Your task to perform on an android device: When is my next meeting? Image 0: 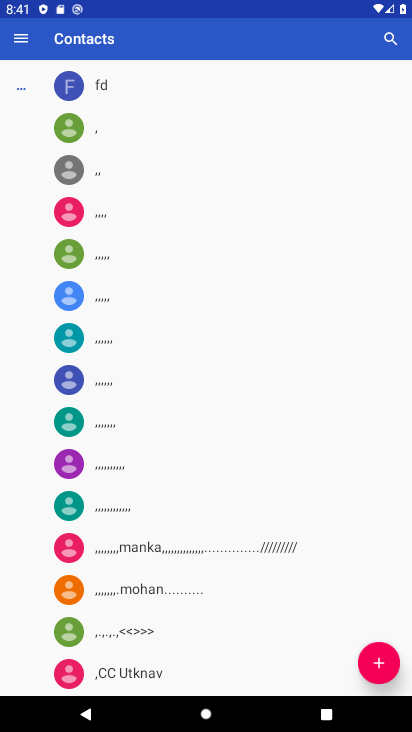
Step 0: press home button
Your task to perform on an android device: When is my next meeting? Image 1: 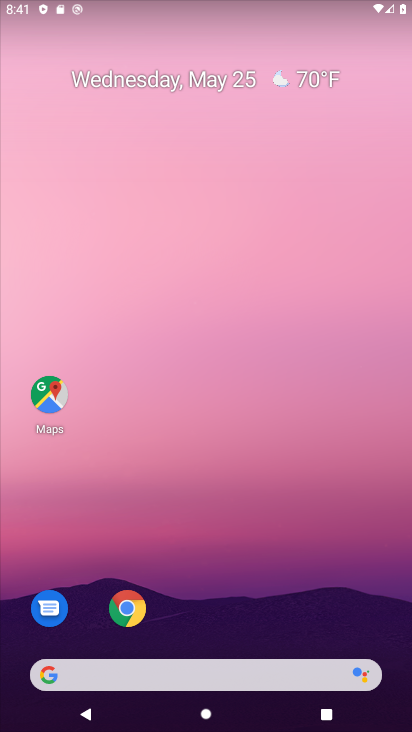
Step 1: drag from (276, 444) to (260, 68)
Your task to perform on an android device: When is my next meeting? Image 2: 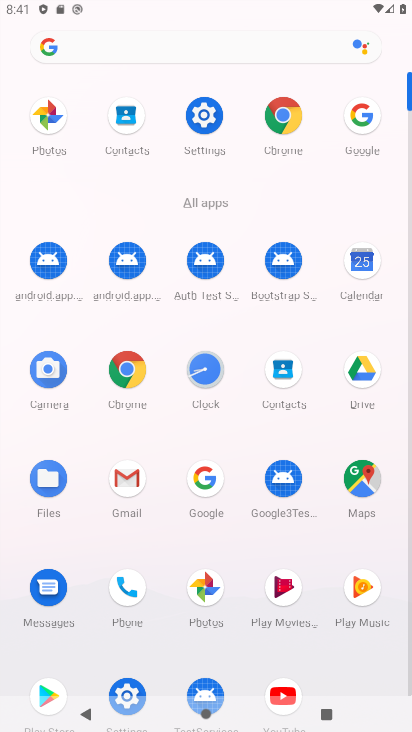
Step 2: click (365, 255)
Your task to perform on an android device: When is my next meeting? Image 3: 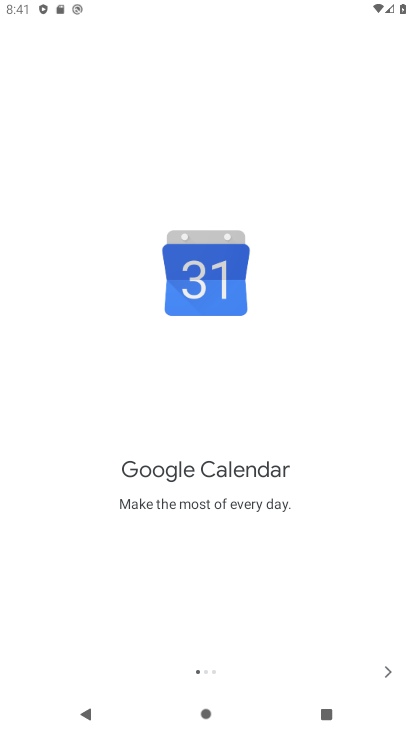
Step 3: click (394, 669)
Your task to perform on an android device: When is my next meeting? Image 4: 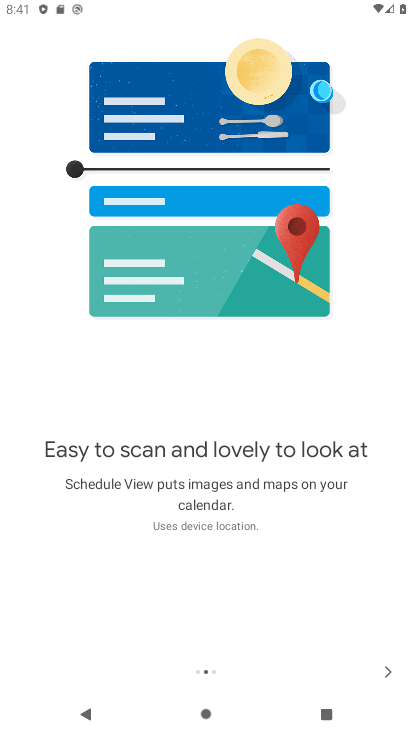
Step 4: click (392, 666)
Your task to perform on an android device: When is my next meeting? Image 5: 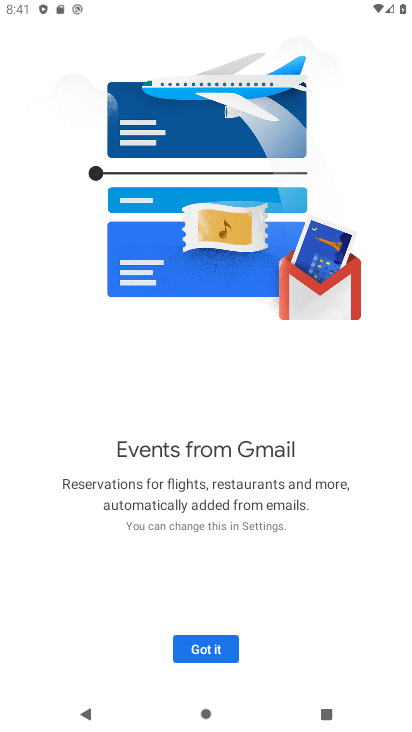
Step 5: click (225, 645)
Your task to perform on an android device: When is my next meeting? Image 6: 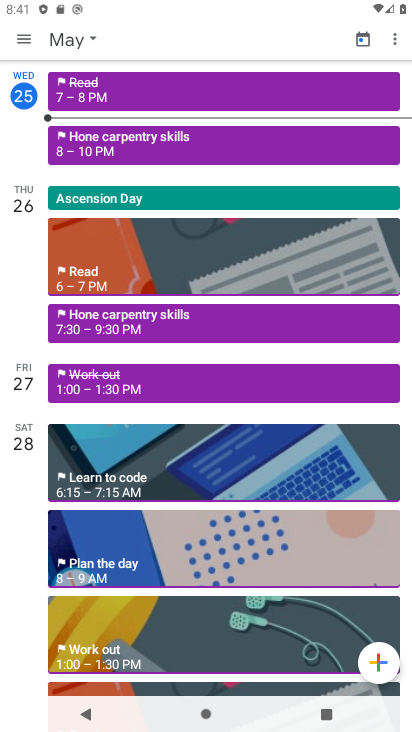
Step 6: click (85, 34)
Your task to perform on an android device: When is my next meeting? Image 7: 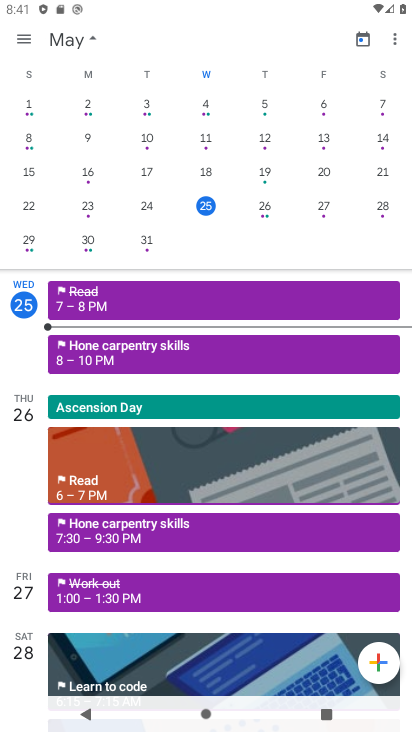
Step 7: click (71, 28)
Your task to perform on an android device: When is my next meeting? Image 8: 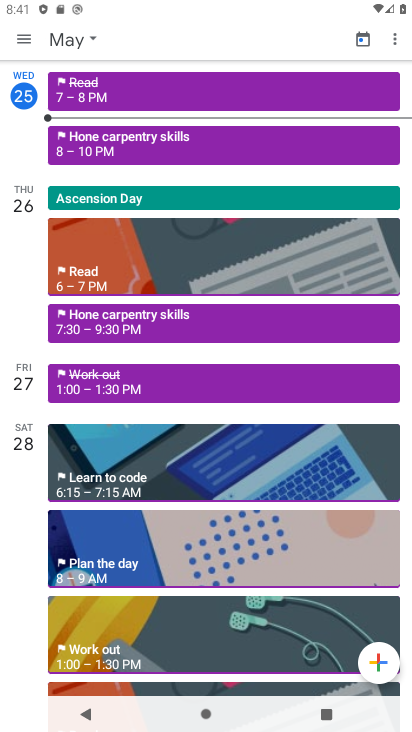
Step 8: task complete